Your task to perform on an android device: Search for seafood restaurants on Google Maps Image 0: 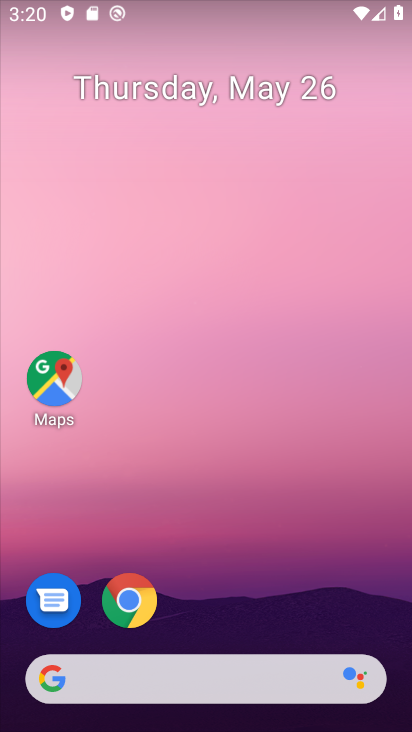
Step 0: drag from (274, 599) to (201, 38)
Your task to perform on an android device: Search for seafood restaurants on Google Maps Image 1: 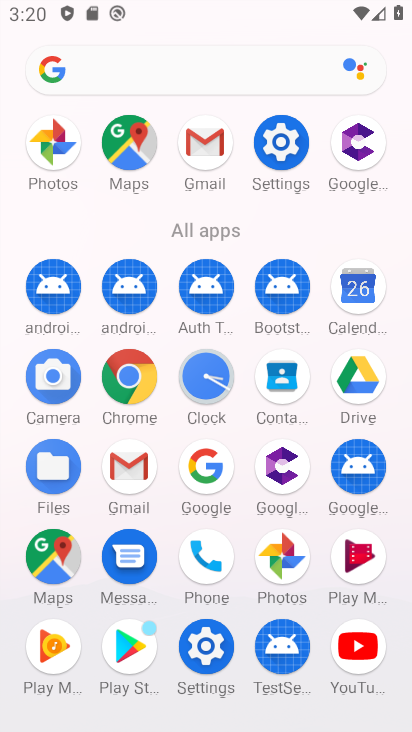
Step 1: drag from (14, 575) to (7, 275)
Your task to perform on an android device: Search for seafood restaurants on Google Maps Image 2: 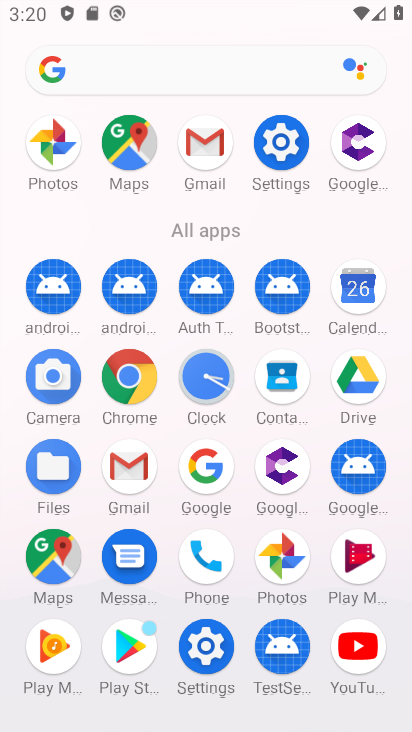
Step 2: click (128, 137)
Your task to perform on an android device: Search for seafood restaurants on Google Maps Image 3: 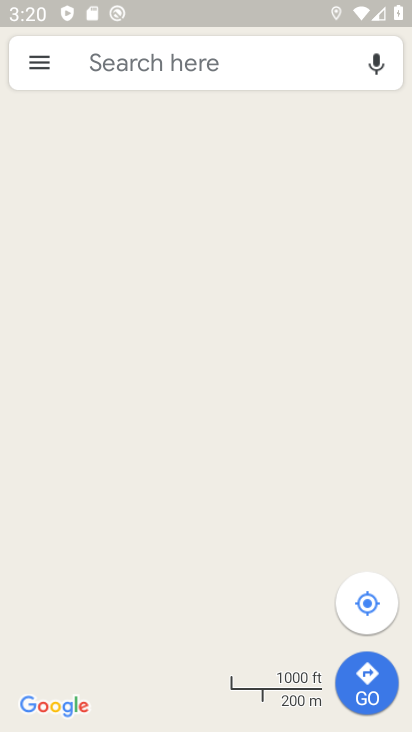
Step 3: click (227, 59)
Your task to perform on an android device: Search for seafood restaurants on Google Maps Image 4: 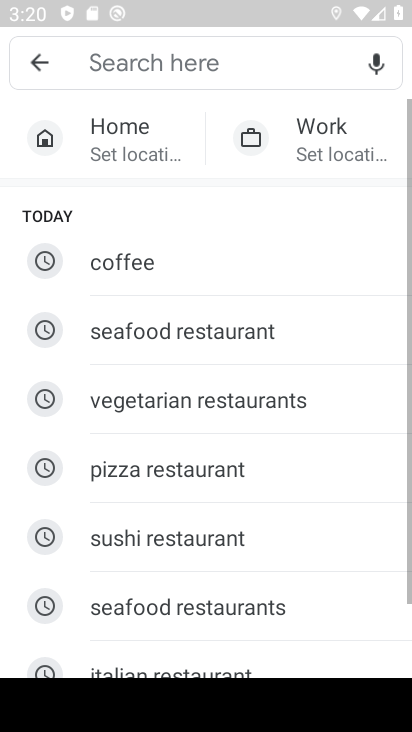
Step 4: type "seafood restaurants "
Your task to perform on an android device: Search for seafood restaurants on Google Maps Image 5: 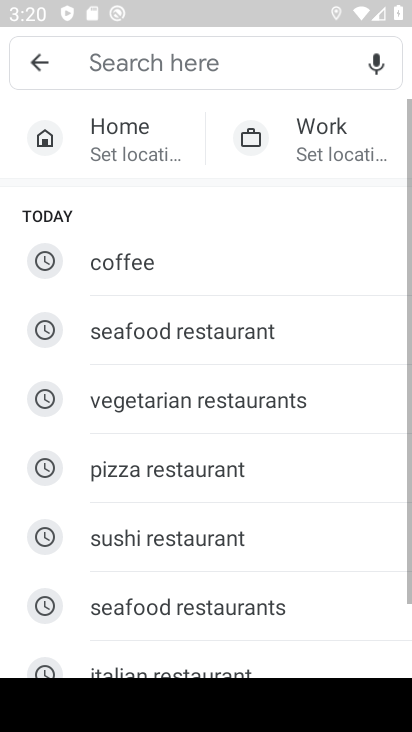
Step 5: click (237, 318)
Your task to perform on an android device: Search for seafood restaurants on Google Maps Image 6: 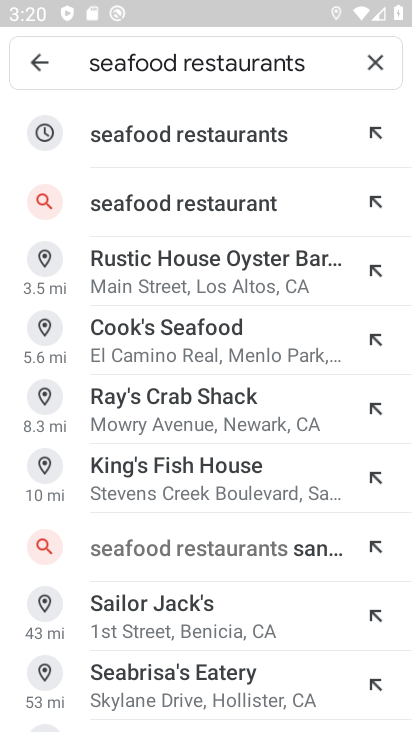
Step 6: click (225, 179)
Your task to perform on an android device: Search for seafood restaurants on Google Maps Image 7: 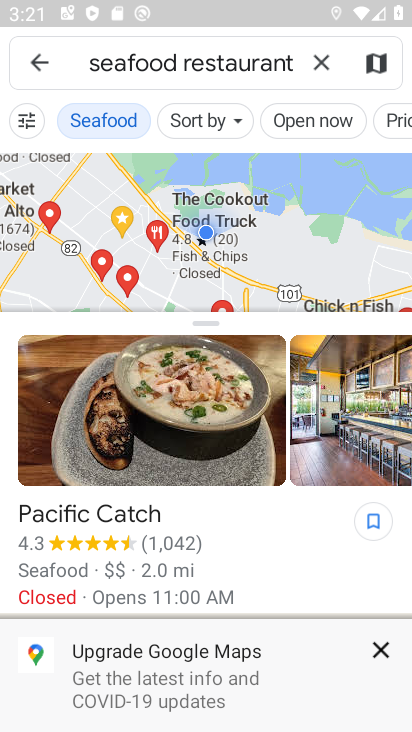
Step 7: task complete